Your task to perform on an android device: open a new tab in the chrome app Image 0: 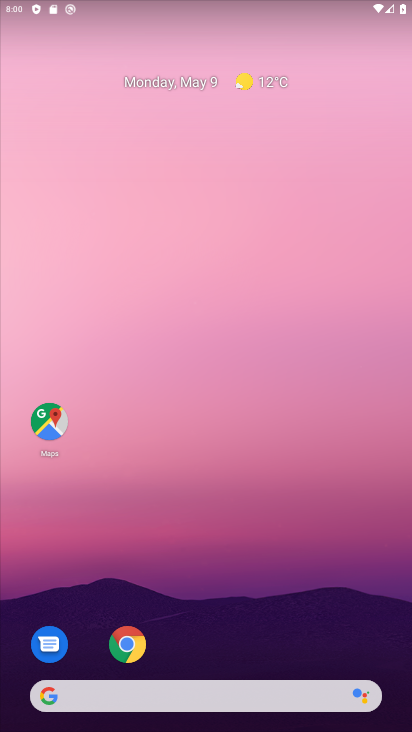
Step 0: click (126, 653)
Your task to perform on an android device: open a new tab in the chrome app Image 1: 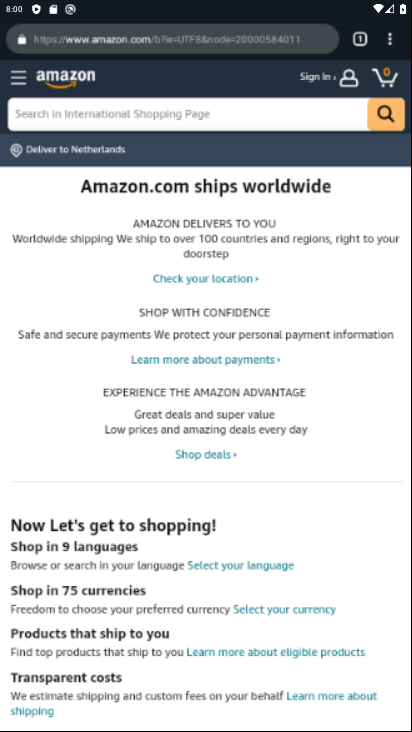
Step 1: click (127, 641)
Your task to perform on an android device: open a new tab in the chrome app Image 2: 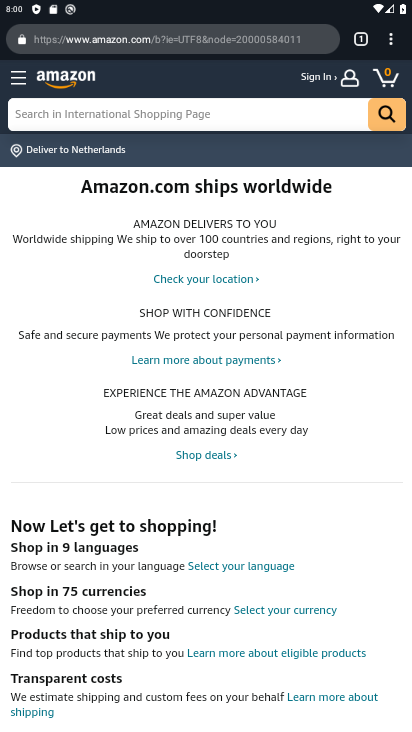
Step 2: click (360, 35)
Your task to perform on an android device: open a new tab in the chrome app Image 3: 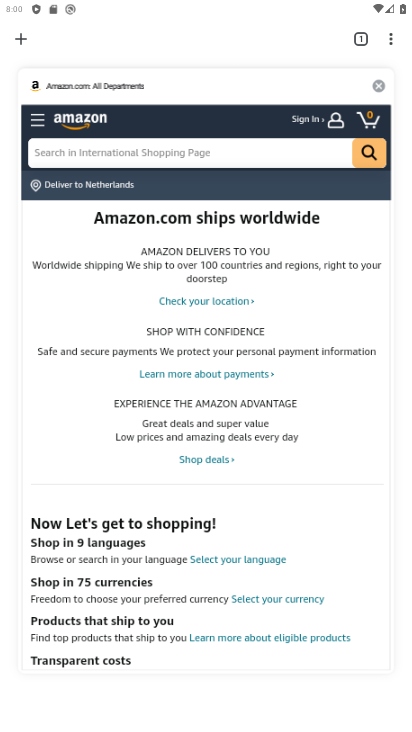
Step 3: click (360, 45)
Your task to perform on an android device: open a new tab in the chrome app Image 4: 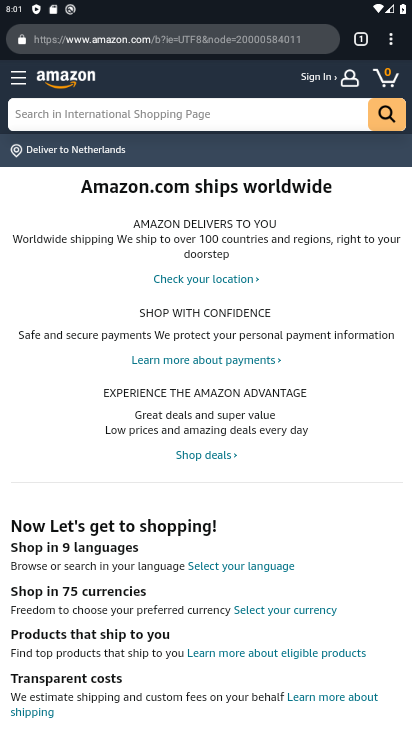
Step 4: click (369, 40)
Your task to perform on an android device: open a new tab in the chrome app Image 5: 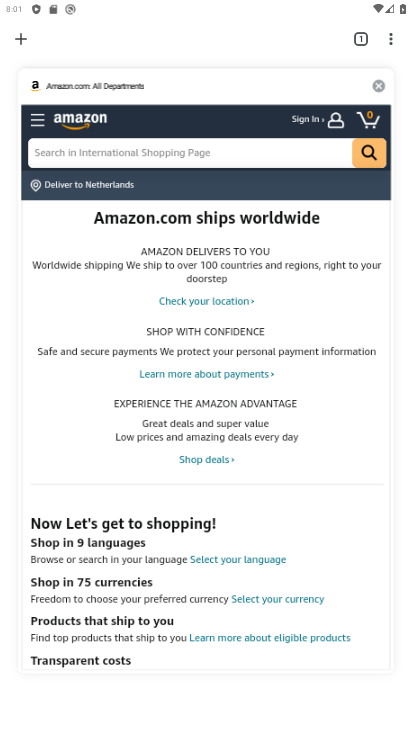
Step 5: click (15, 36)
Your task to perform on an android device: open a new tab in the chrome app Image 6: 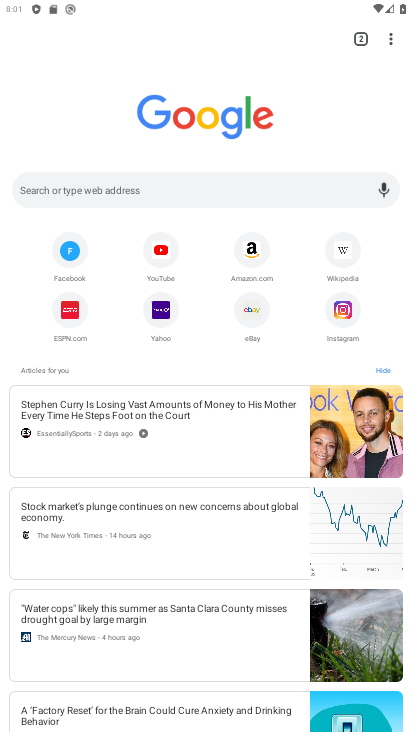
Step 6: task complete